Your task to perform on an android device: turn off wifi Image 0: 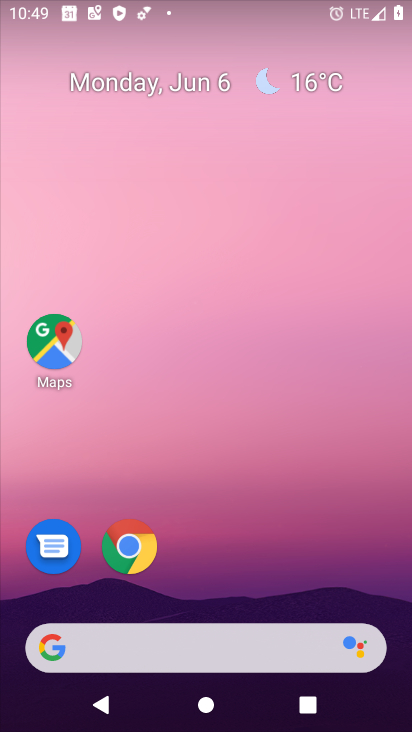
Step 0: drag from (218, 578) to (265, 314)
Your task to perform on an android device: turn off wifi Image 1: 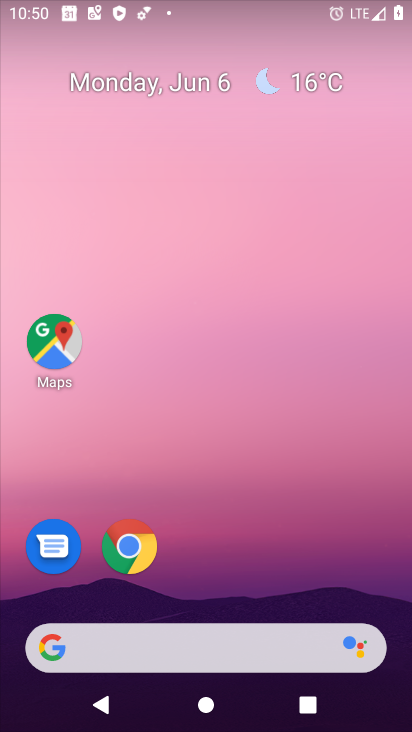
Step 1: drag from (207, 590) to (289, 169)
Your task to perform on an android device: turn off wifi Image 2: 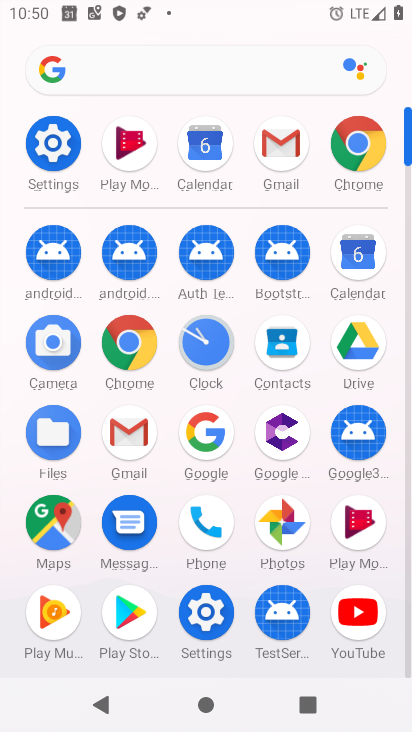
Step 2: click (49, 158)
Your task to perform on an android device: turn off wifi Image 3: 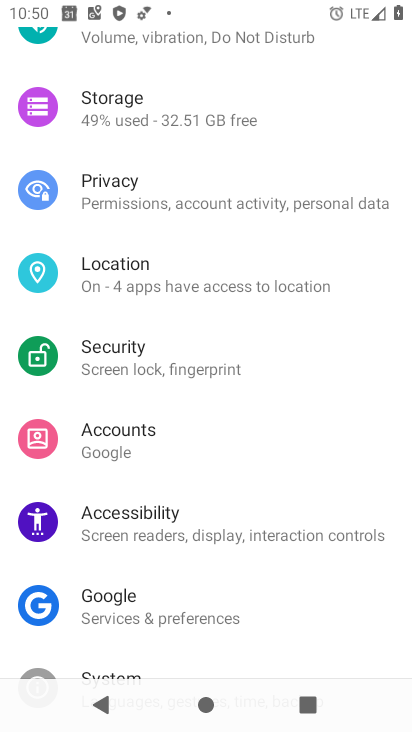
Step 3: drag from (147, 192) to (190, 590)
Your task to perform on an android device: turn off wifi Image 4: 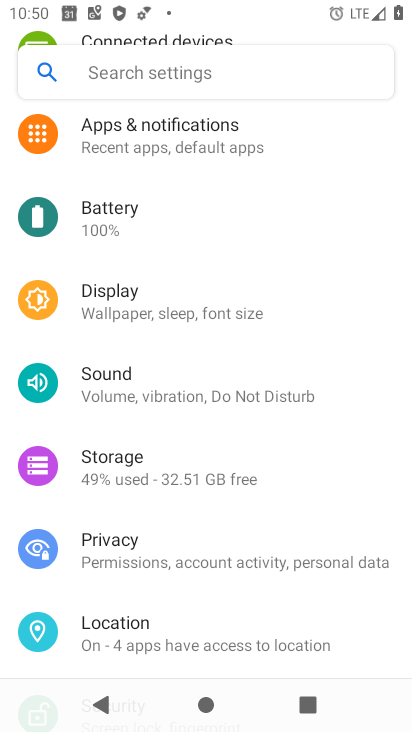
Step 4: drag from (230, 194) to (271, 727)
Your task to perform on an android device: turn off wifi Image 5: 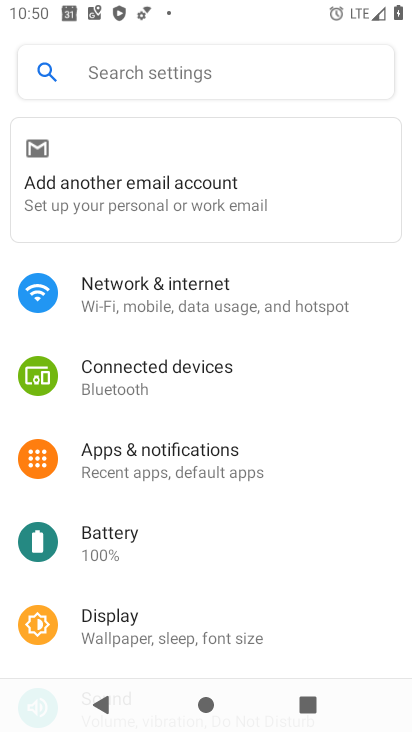
Step 5: click (173, 300)
Your task to perform on an android device: turn off wifi Image 6: 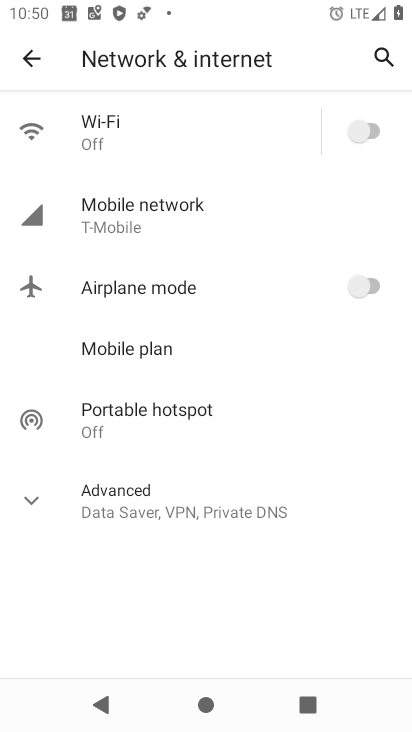
Step 6: task complete